Your task to perform on an android device: Search for amazon basics triple a on walmart, select the first entry, and add it to the cart. Image 0: 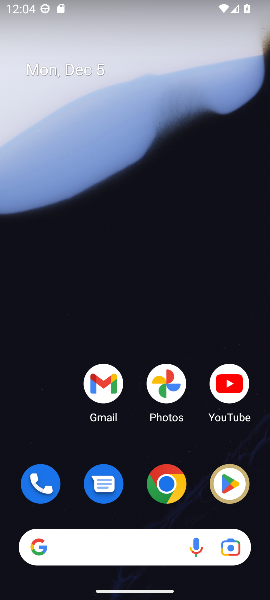
Step 0: click (172, 490)
Your task to perform on an android device: Search for amazon basics triple a on walmart, select the first entry, and add it to the cart. Image 1: 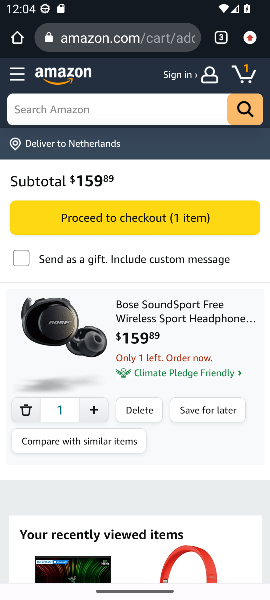
Step 1: click (86, 36)
Your task to perform on an android device: Search for amazon basics triple a on walmart, select the first entry, and add it to the cart. Image 2: 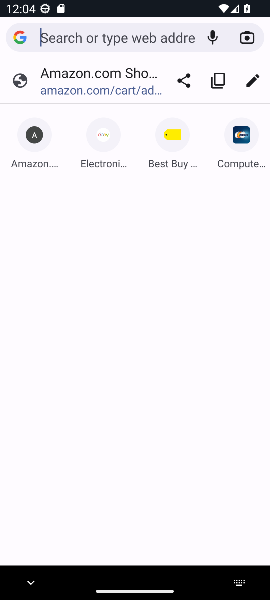
Step 2: type "walmart.com"
Your task to perform on an android device: Search for amazon basics triple a on walmart, select the first entry, and add it to the cart. Image 3: 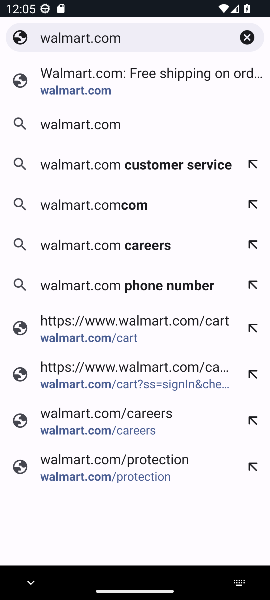
Step 3: click (69, 97)
Your task to perform on an android device: Search for amazon basics triple a on walmart, select the first entry, and add it to the cart. Image 4: 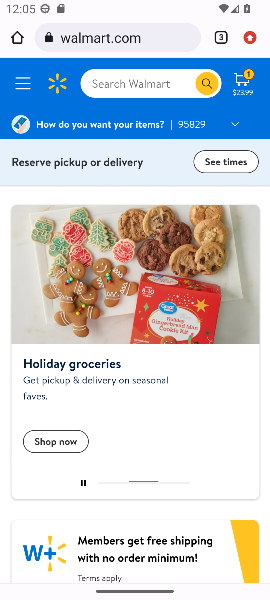
Step 4: click (139, 79)
Your task to perform on an android device: Search for amazon basics triple a on walmart, select the first entry, and add it to the cart. Image 5: 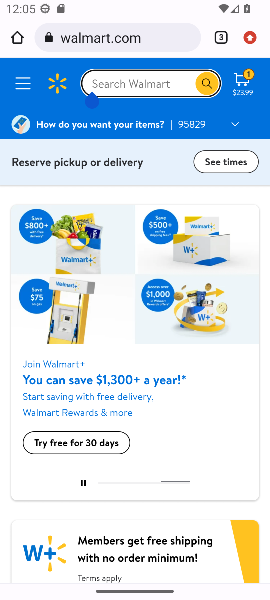
Step 5: type "amazon basics triple a"
Your task to perform on an android device: Search for amazon basics triple a on walmart, select the first entry, and add it to the cart. Image 6: 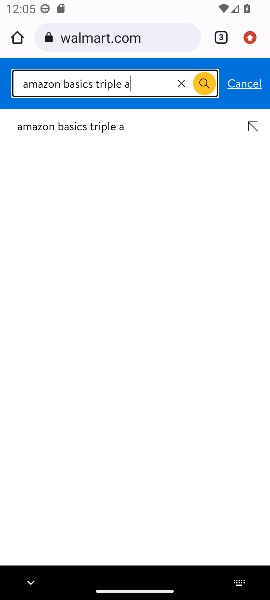
Step 6: click (76, 128)
Your task to perform on an android device: Search for amazon basics triple a on walmart, select the first entry, and add it to the cart. Image 7: 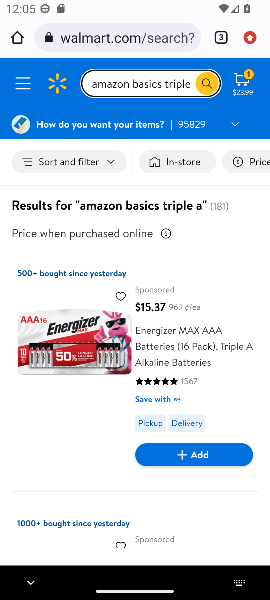
Step 7: task complete